Your task to perform on an android device: open a bookmark in the chrome app Image 0: 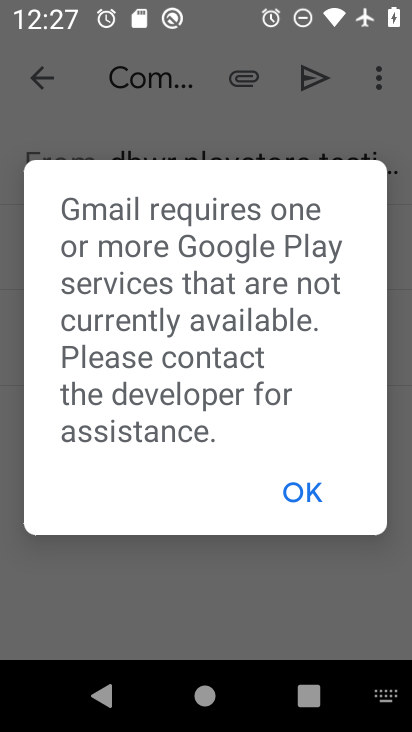
Step 0: press back button
Your task to perform on an android device: open a bookmark in the chrome app Image 1: 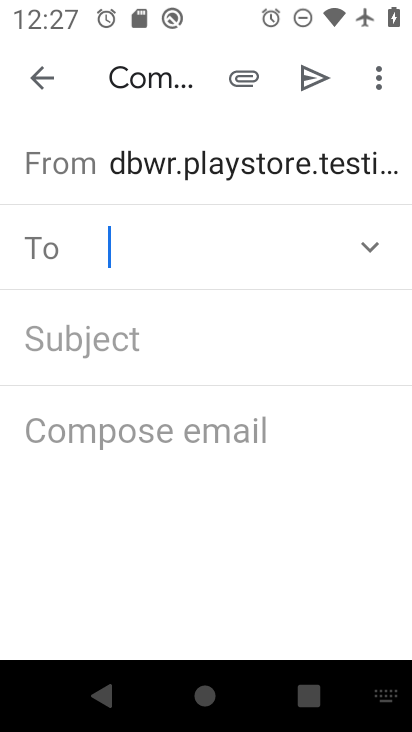
Step 1: press back button
Your task to perform on an android device: open a bookmark in the chrome app Image 2: 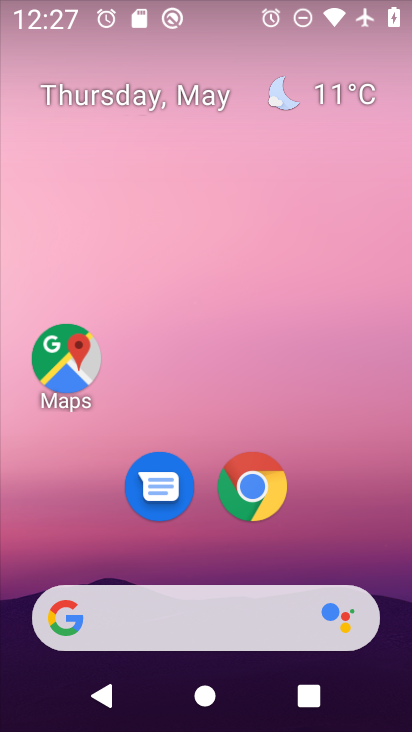
Step 2: drag from (346, 496) to (286, 10)
Your task to perform on an android device: open a bookmark in the chrome app Image 3: 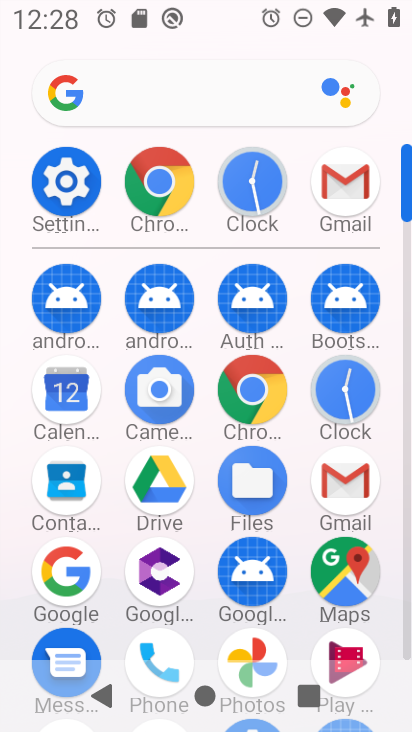
Step 3: drag from (18, 540) to (29, 262)
Your task to perform on an android device: open a bookmark in the chrome app Image 4: 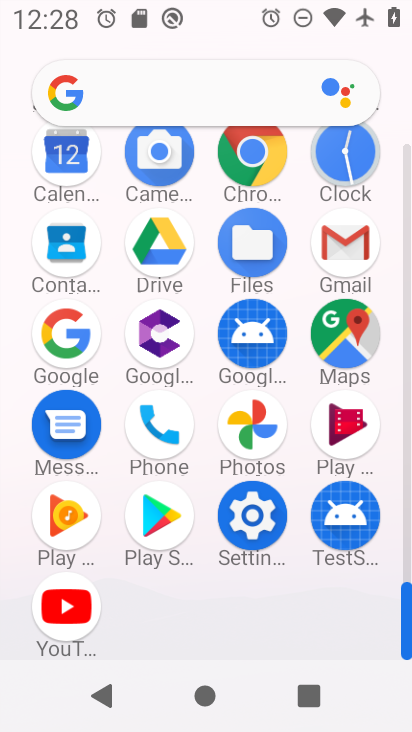
Step 4: click (254, 152)
Your task to perform on an android device: open a bookmark in the chrome app Image 5: 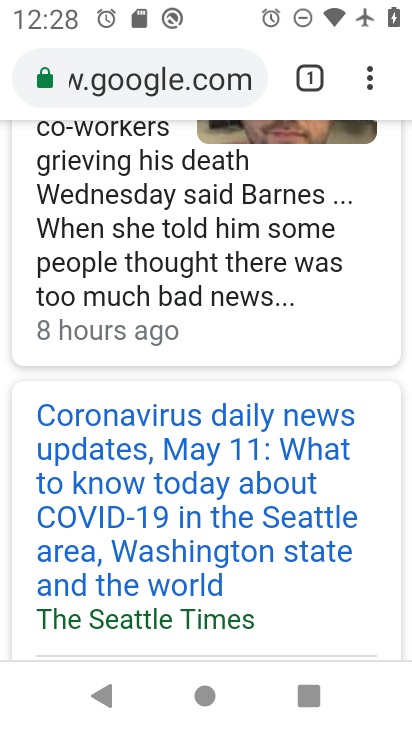
Step 5: drag from (262, 213) to (262, 587)
Your task to perform on an android device: open a bookmark in the chrome app Image 6: 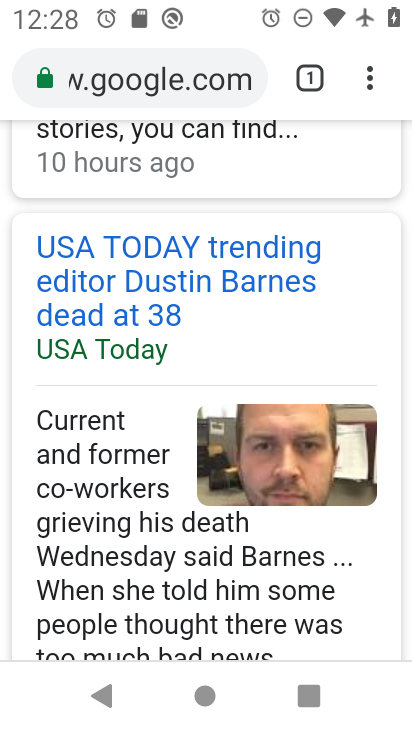
Step 6: drag from (372, 71) to (153, 288)
Your task to perform on an android device: open a bookmark in the chrome app Image 7: 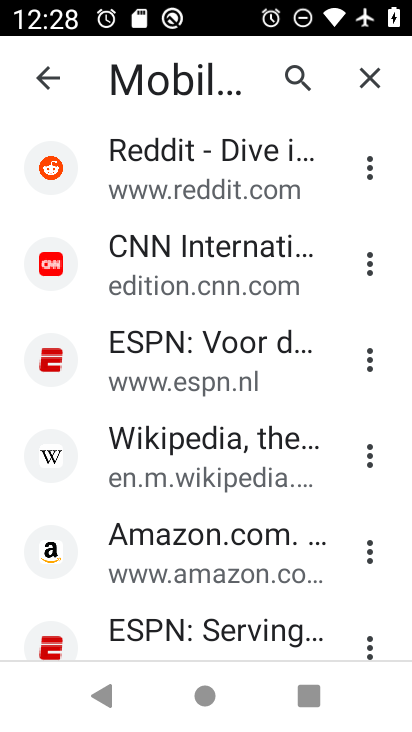
Step 7: click (179, 262)
Your task to perform on an android device: open a bookmark in the chrome app Image 8: 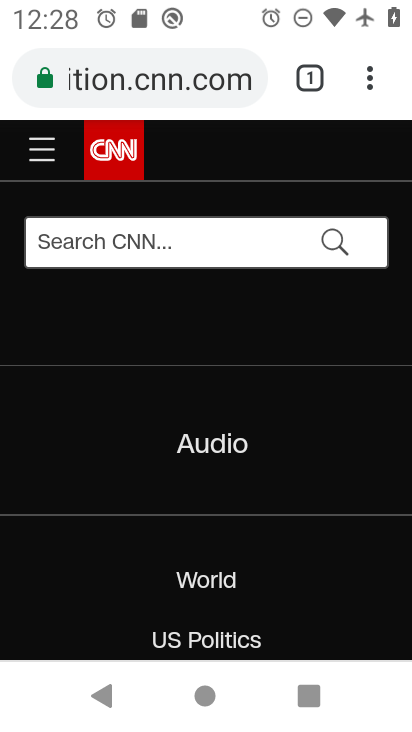
Step 8: task complete